Your task to perform on an android device: Open settings Image 0: 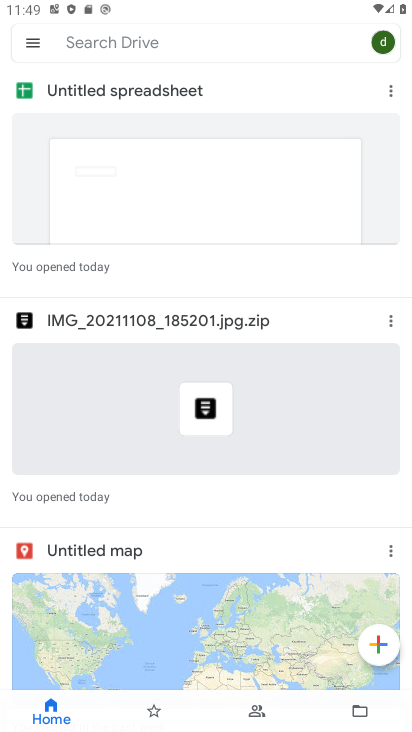
Step 0: press home button
Your task to perform on an android device: Open settings Image 1: 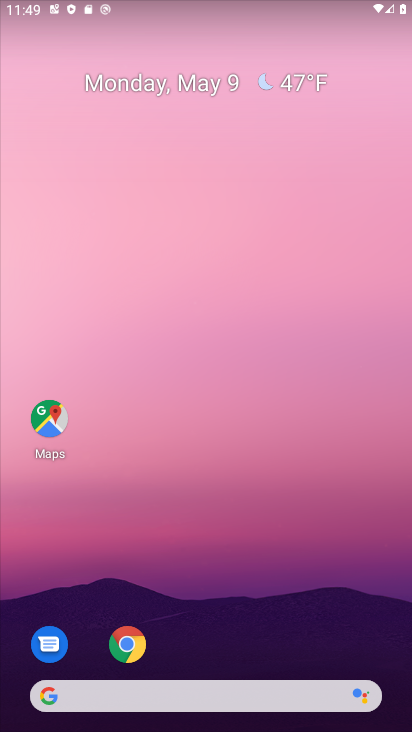
Step 1: drag from (86, 550) to (311, 105)
Your task to perform on an android device: Open settings Image 2: 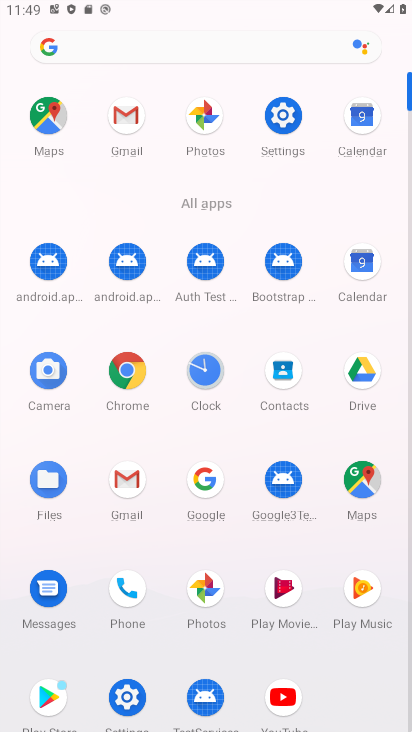
Step 2: click (116, 680)
Your task to perform on an android device: Open settings Image 3: 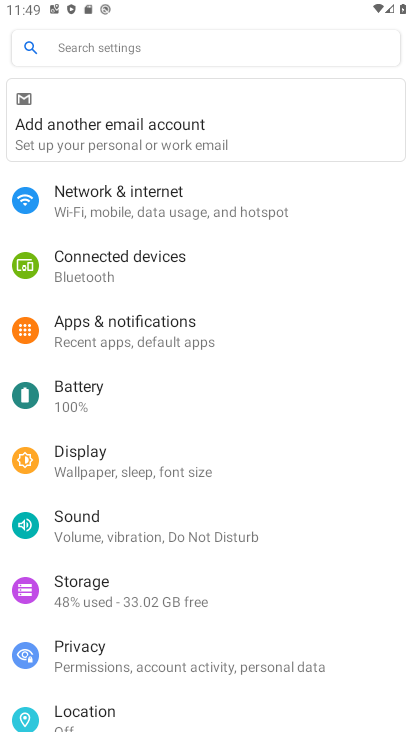
Step 3: task complete